Your task to perform on an android device: turn on the 24-hour format for clock Image 0: 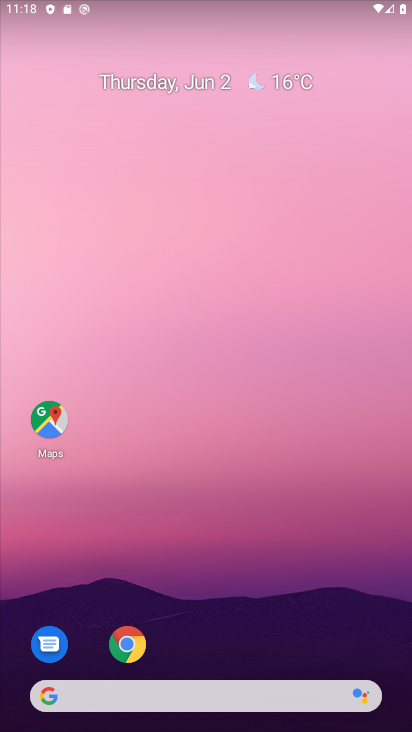
Step 0: drag from (205, 553) to (253, 228)
Your task to perform on an android device: turn on the 24-hour format for clock Image 1: 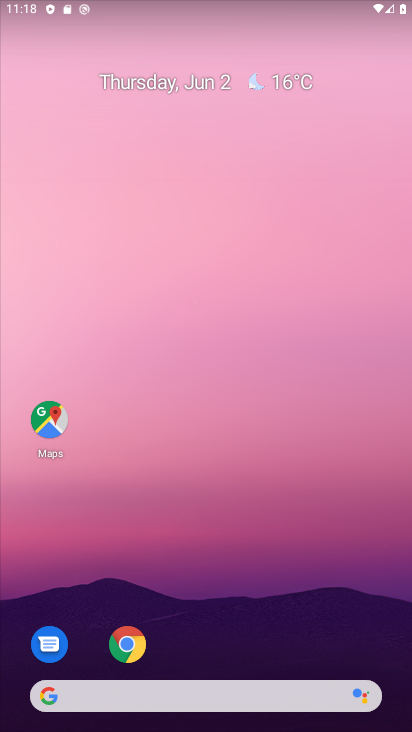
Step 1: drag from (233, 656) to (277, 173)
Your task to perform on an android device: turn on the 24-hour format for clock Image 2: 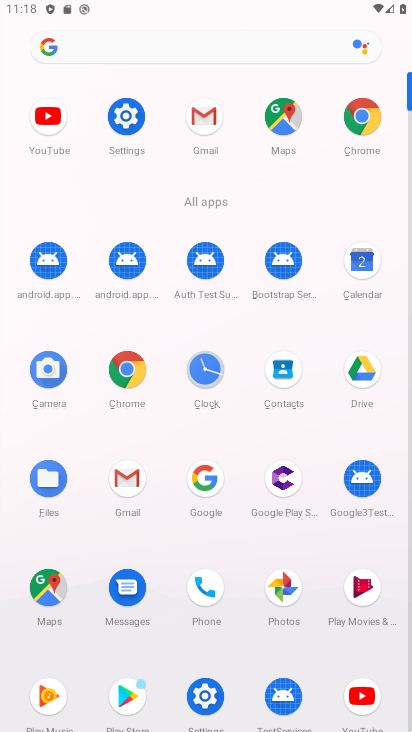
Step 2: click (204, 375)
Your task to perform on an android device: turn on the 24-hour format for clock Image 3: 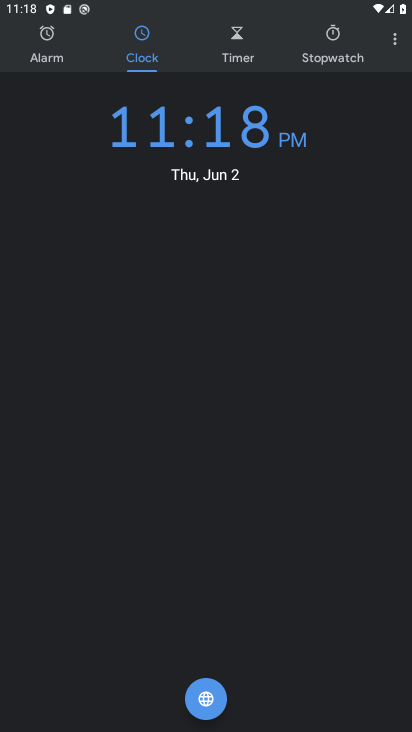
Step 3: click (398, 39)
Your task to perform on an android device: turn on the 24-hour format for clock Image 4: 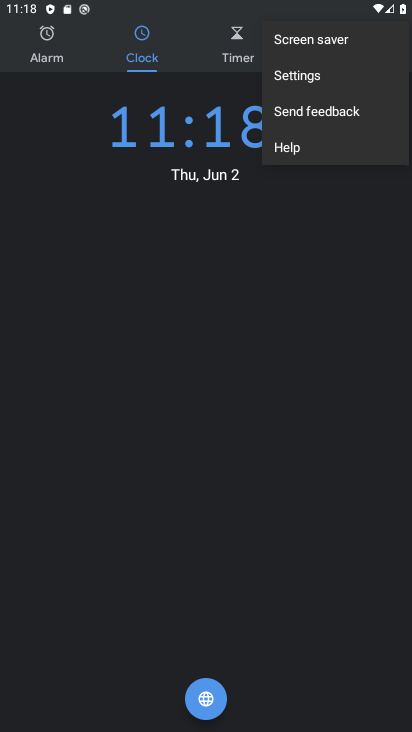
Step 4: click (341, 76)
Your task to perform on an android device: turn on the 24-hour format for clock Image 5: 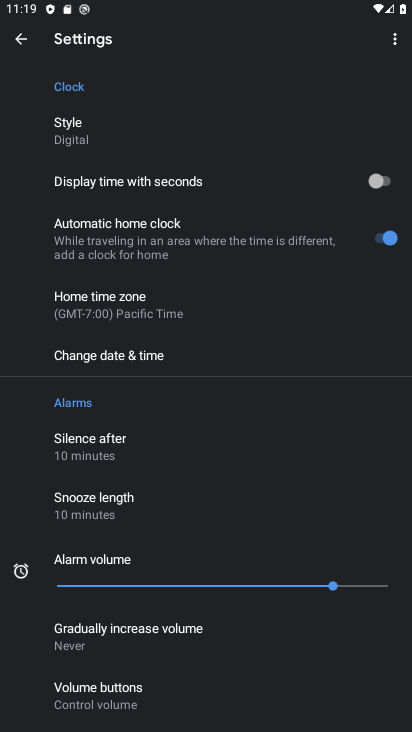
Step 5: click (144, 362)
Your task to perform on an android device: turn on the 24-hour format for clock Image 6: 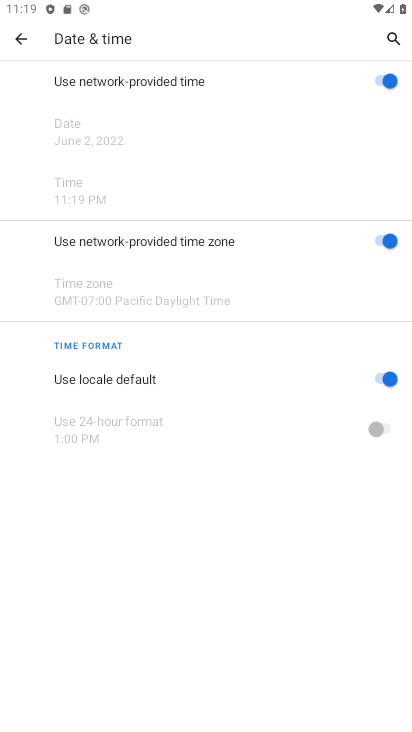
Step 6: click (378, 381)
Your task to perform on an android device: turn on the 24-hour format for clock Image 7: 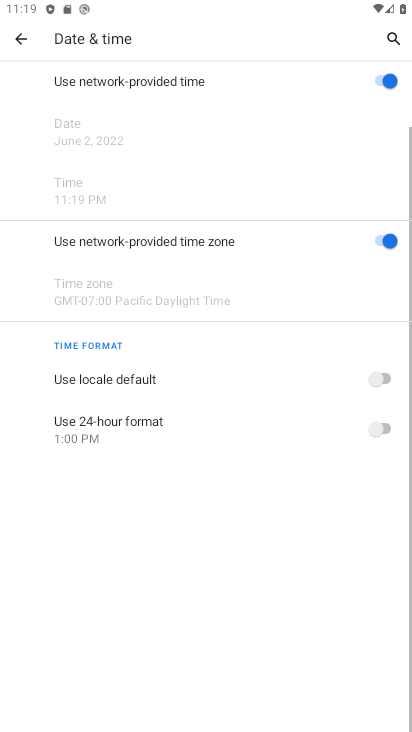
Step 7: click (390, 432)
Your task to perform on an android device: turn on the 24-hour format for clock Image 8: 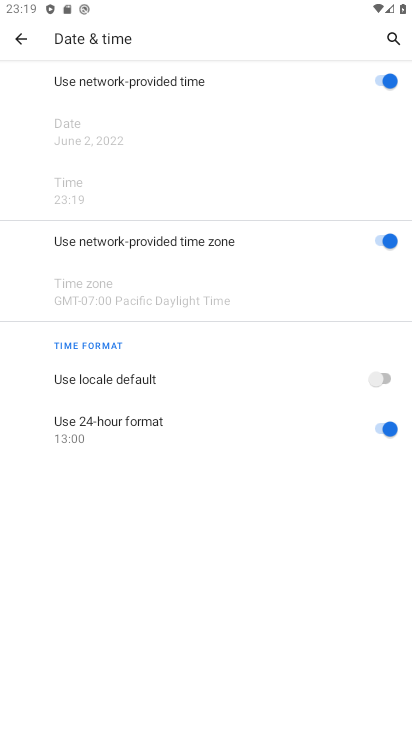
Step 8: task complete